Your task to perform on an android device: Search for Italian restaurants on Maps Image 0: 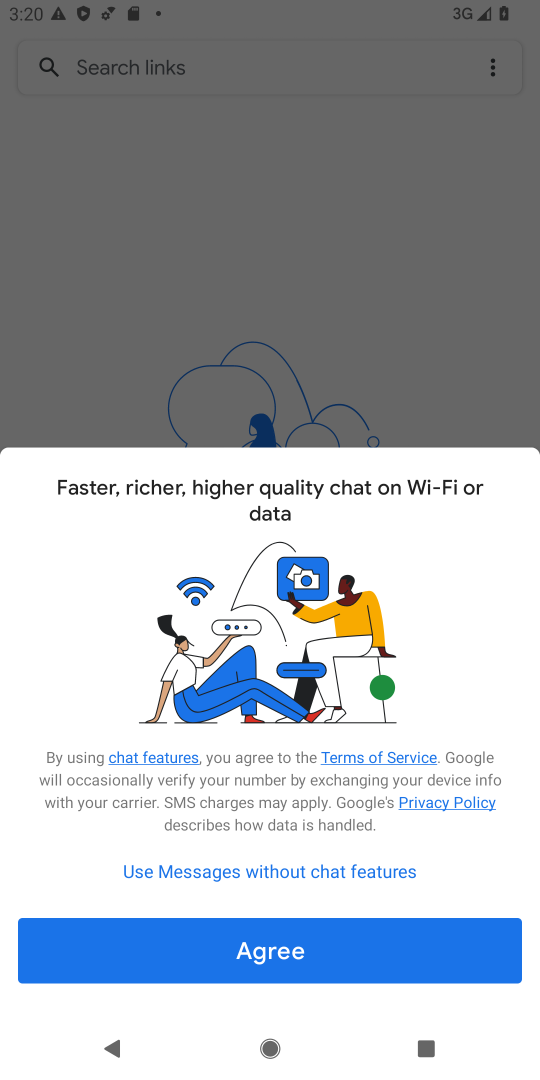
Step 0: press home button
Your task to perform on an android device: Search for Italian restaurants on Maps Image 1: 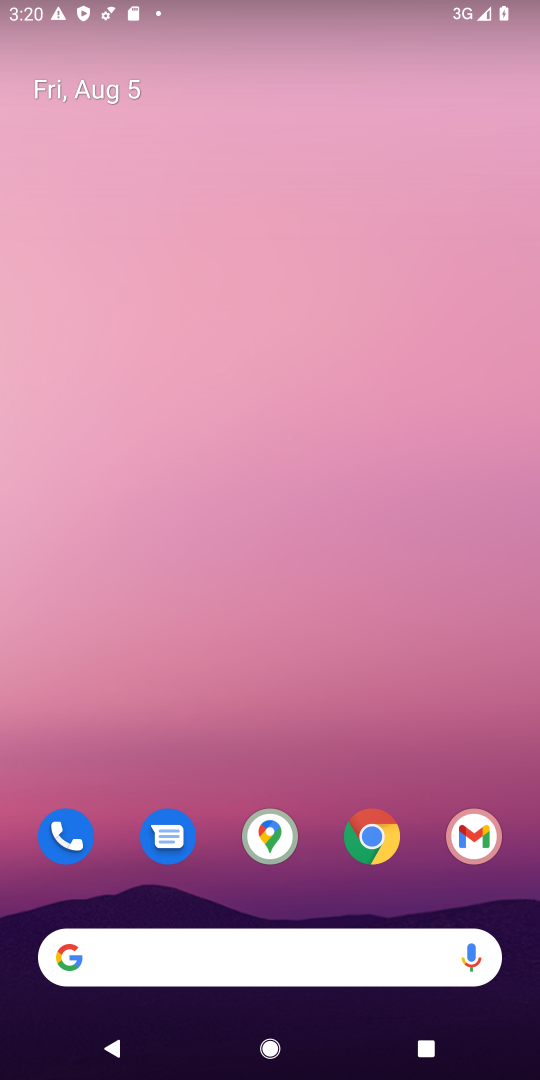
Step 1: drag from (269, 844) to (265, 150)
Your task to perform on an android device: Search for Italian restaurants on Maps Image 2: 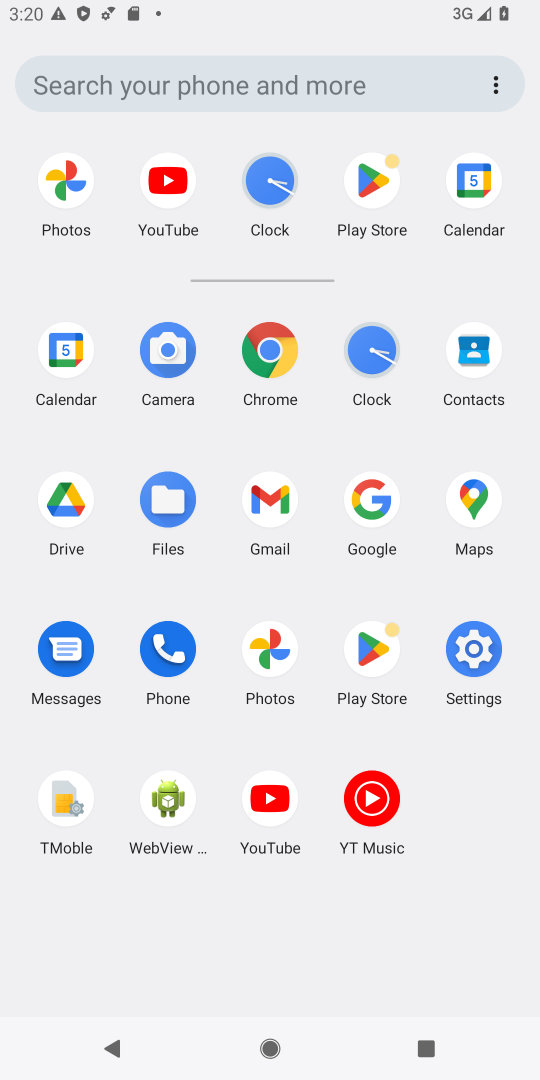
Step 2: click (487, 511)
Your task to perform on an android device: Search for Italian restaurants on Maps Image 3: 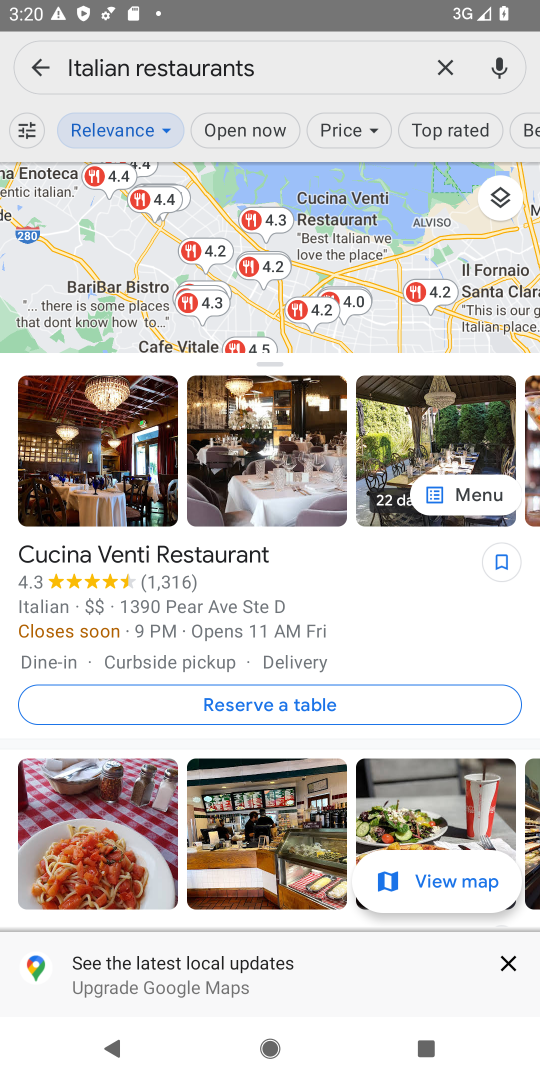
Step 3: task complete